Your task to perform on an android device: Play the last video I watched on Youtube Image 0: 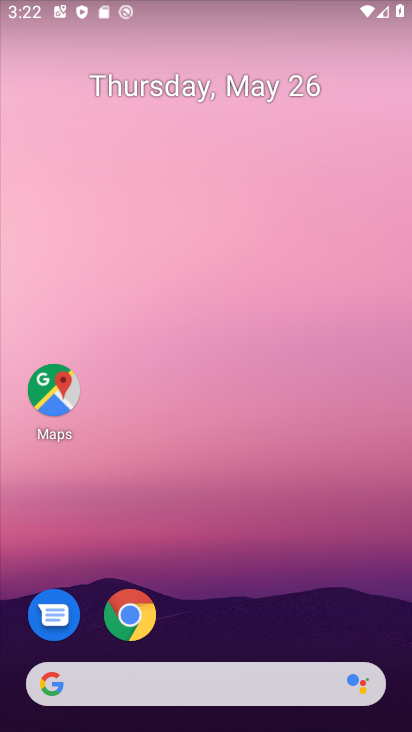
Step 0: drag from (292, 618) to (246, 145)
Your task to perform on an android device: Play the last video I watched on Youtube Image 1: 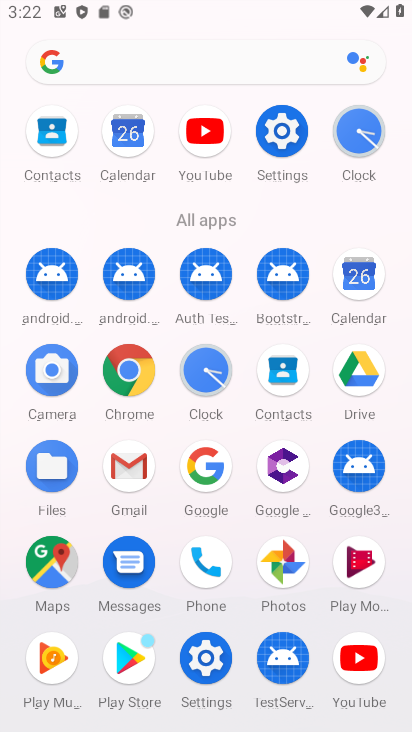
Step 1: click (363, 664)
Your task to perform on an android device: Play the last video I watched on Youtube Image 2: 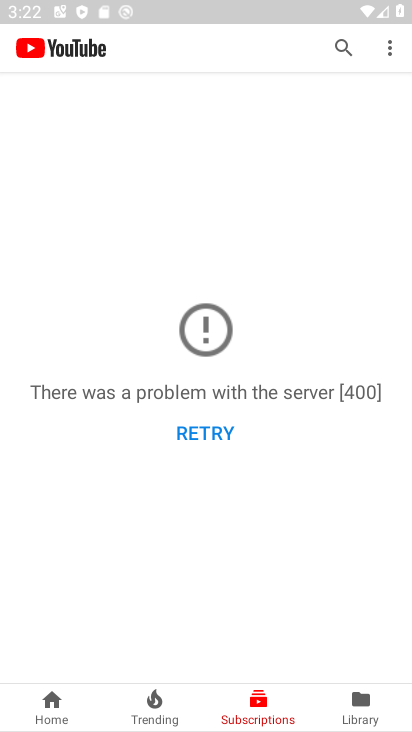
Step 2: click (368, 701)
Your task to perform on an android device: Play the last video I watched on Youtube Image 3: 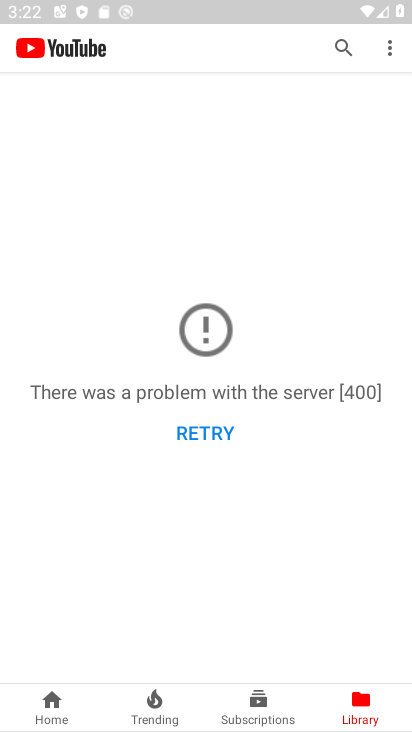
Step 3: task complete